Your task to perform on an android device: turn on data saver in the chrome app Image 0: 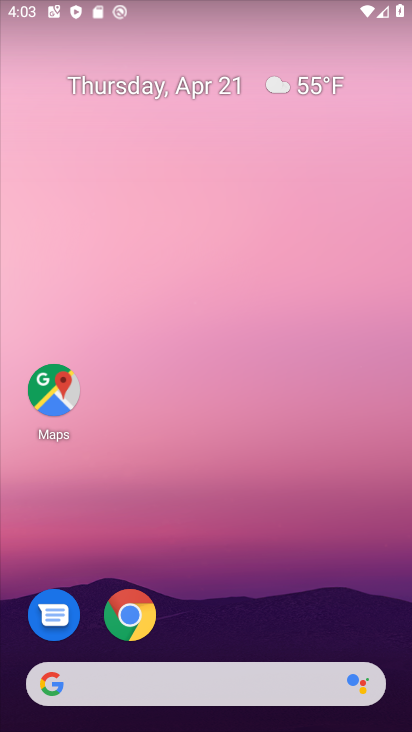
Step 0: drag from (263, 523) to (174, 55)
Your task to perform on an android device: turn on data saver in the chrome app Image 1: 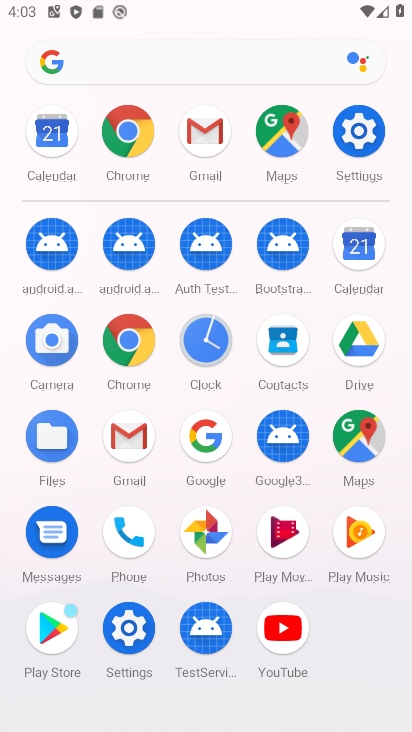
Step 1: drag from (17, 469) to (0, 267)
Your task to perform on an android device: turn on data saver in the chrome app Image 2: 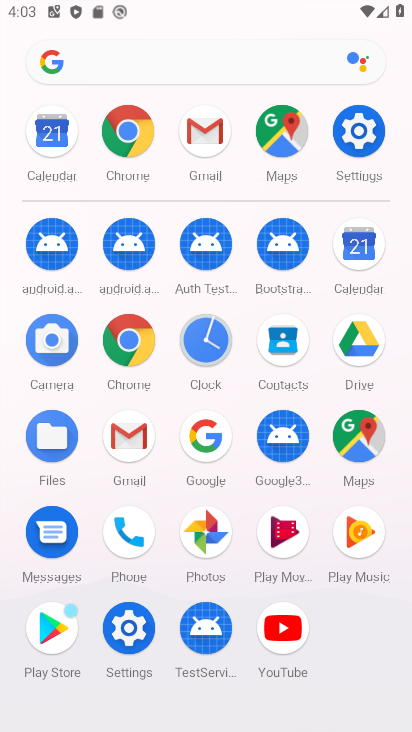
Step 2: click (130, 339)
Your task to perform on an android device: turn on data saver in the chrome app Image 3: 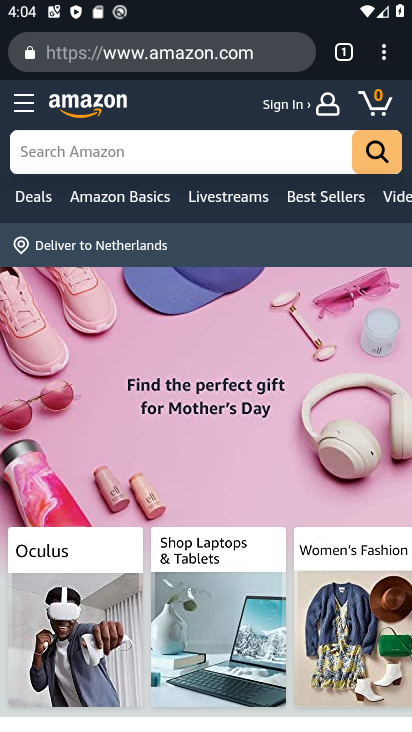
Step 3: drag from (384, 60) to (215, 657)
Your task to perform on an android device: turn on data saver in the chrome app Image 4: 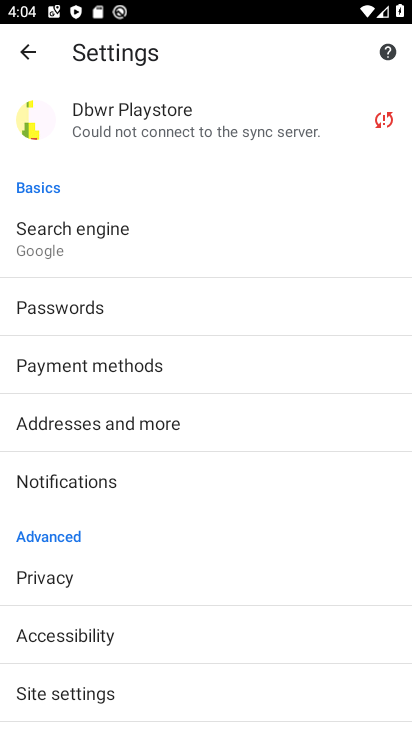
Step 4: drag from (176, 603) to (203, 249)
Your task to perform on an android device: turn on data saver in the chrome app Image 5: 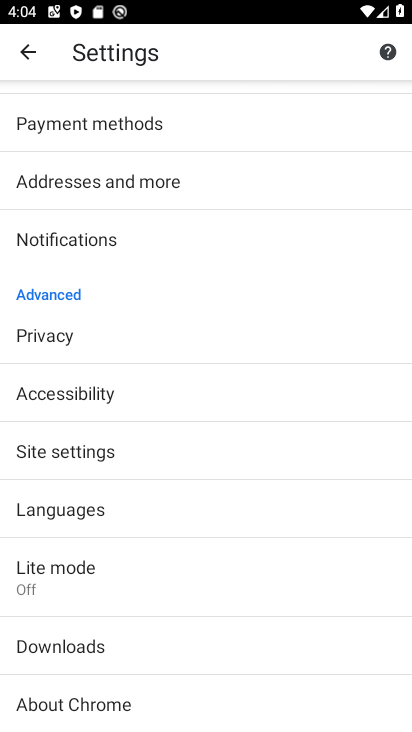
Step 5: click (97, 567)
Your task to perform on an android device: turn on data saver in the chrome app Image 6: 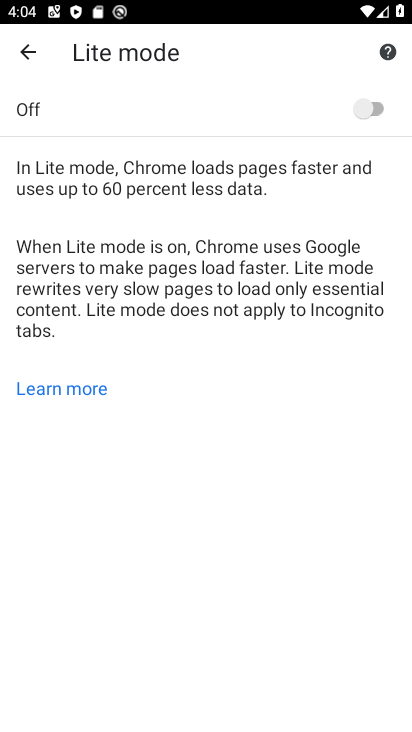
Step 6: click (367, 102)
Your task to perform on an android device: turn on data saver in the chrome app Image 7: 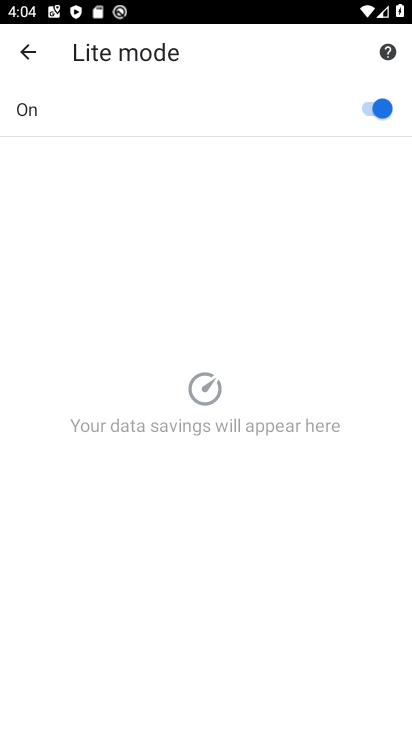
Step 7: task complete